Your task to perform on an android device: Search for seafood restaurants on Google Maps Image 0: 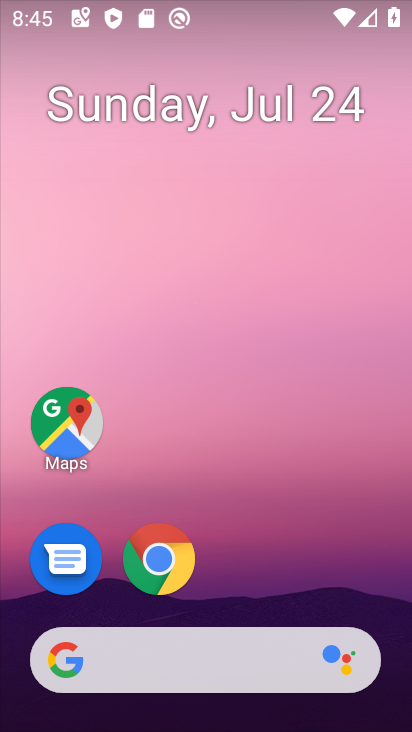
Step 0: click (67, 432)
Your task to perform on an android device: Search for seafood restaurants on Google Maps Image 1: 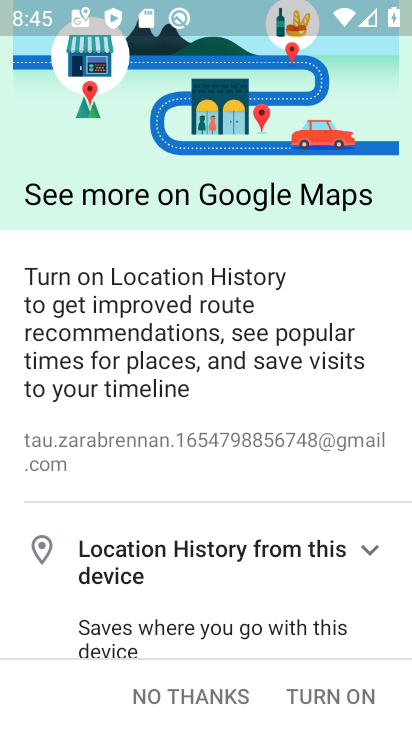
Step 1: click (169, 690)
Your task to perform on an android device: Search for seafood restaurants on Google Maps Image 2: 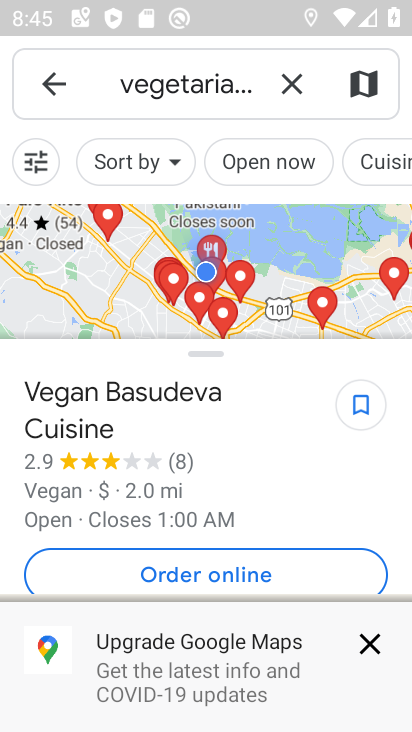
Step 2: click (278, 74)
Your task to perform on an android device: Search for seafood restaurants on Google Maps Image 3: 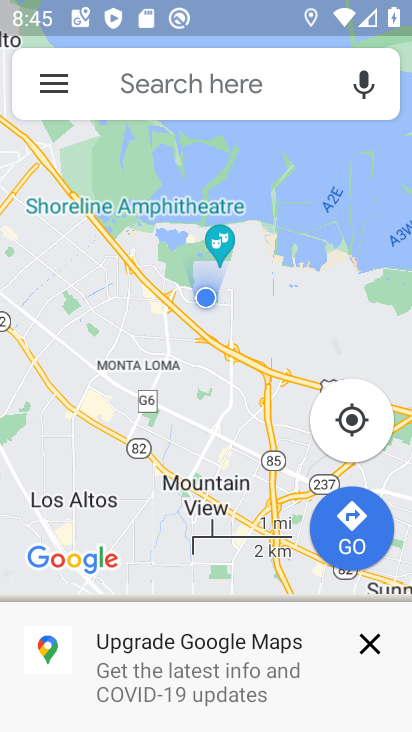
Step 3: click (225, 95)
Your task to perform on an android device: Search for seafood restaurants on Google Maps Image 4: 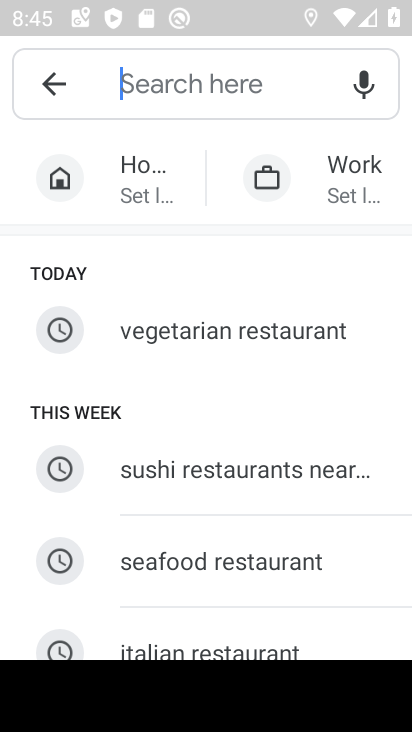
Step 4: click (240, 572)
Your task to perform on an android device: Search for seafood restaurants on Google Maps Image 5: 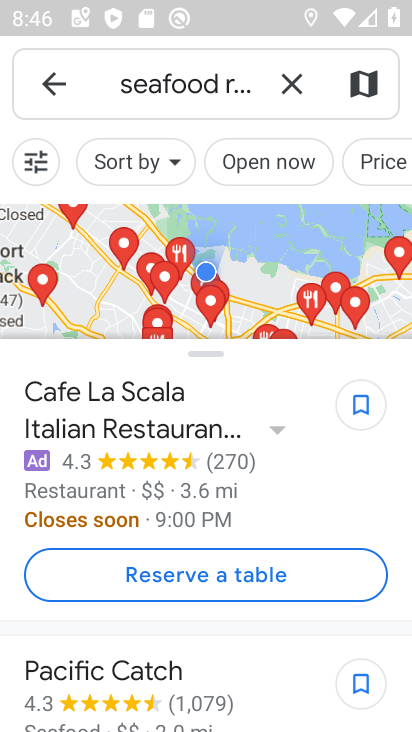
Step 5: task complete